Your task to perform on an android device: Set the phone to "Do not disturb". Image 0: 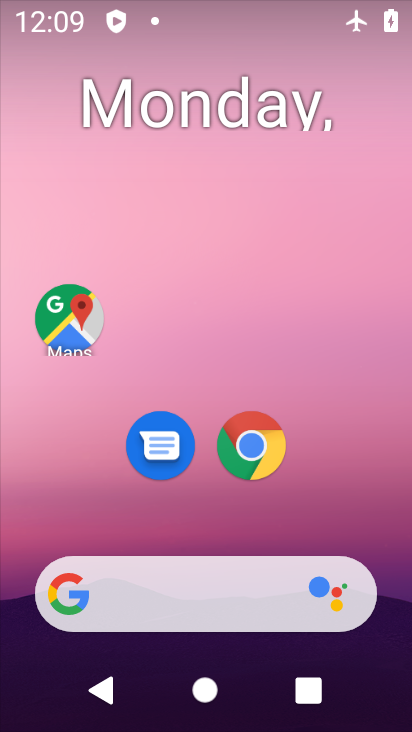
Step 0: drag from (219, 3) to (223, 342)
Your task to perform on an android device: Set the phone to "Do not disturb". Image 1: 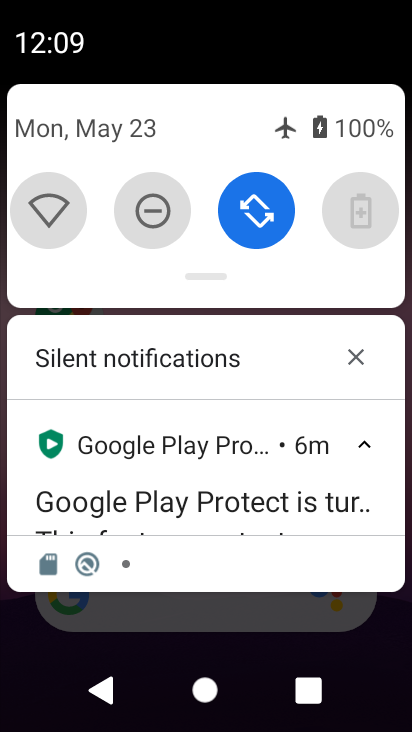
Step 1: click (137, 192)
Your task to perform on an android device: Set the phone to "Do not disturb". Image 2: 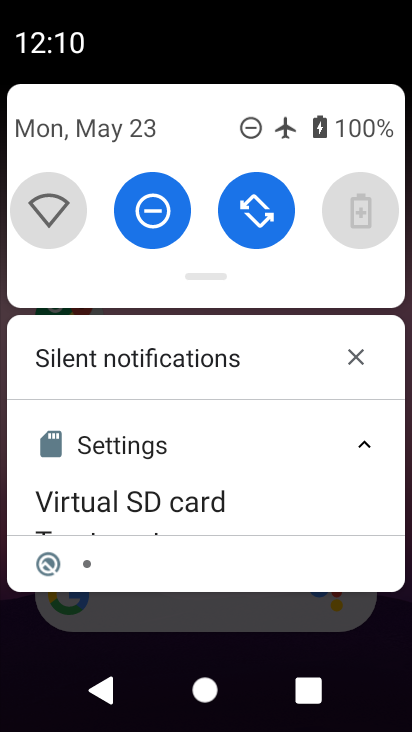
Step 2: task complete